Your task to perform on an android device: Go to Google maps Image 0: 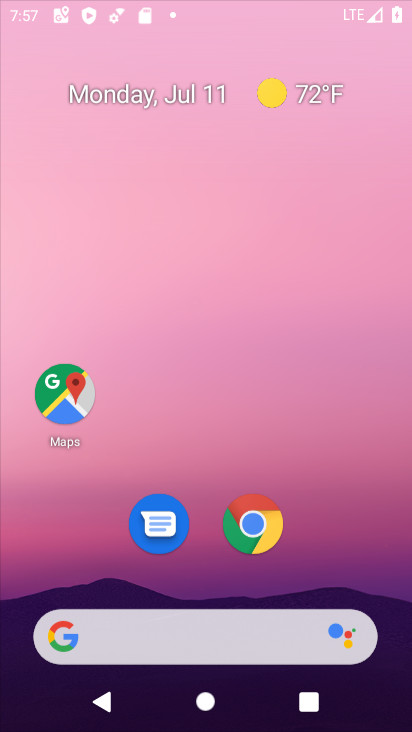
Step 0: click (267, 36)
Your task to perform on an android device: Go to Google maps Image 1: 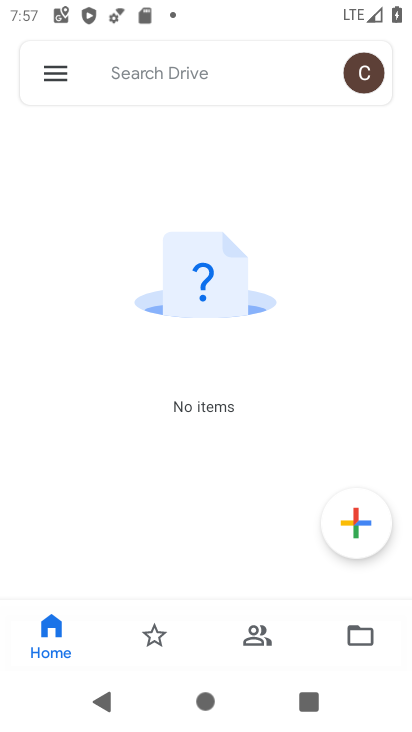
Step 1: press home button
Your task to perform on an android device: Go to Google maps Image 2: 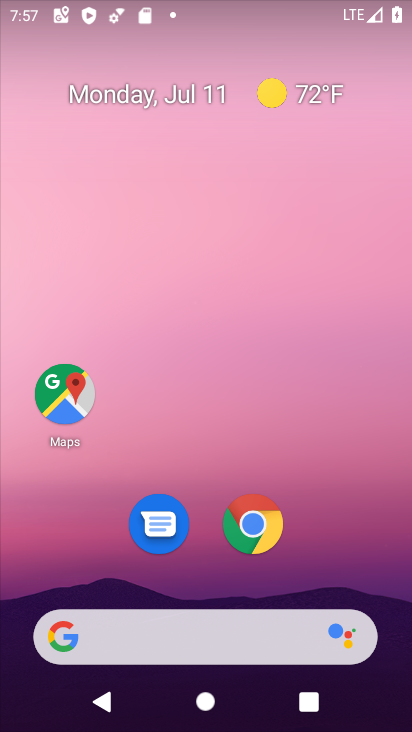
Step 2: click (73, 393)
Your task to perform on an android device: Go to Google maps Image 3: 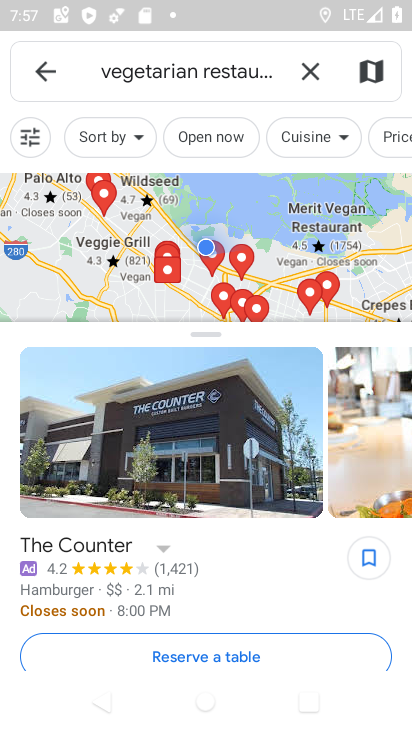
Step 3: click (315, 63)
Your task to perform on an android device: Go to Google maps Image 4: 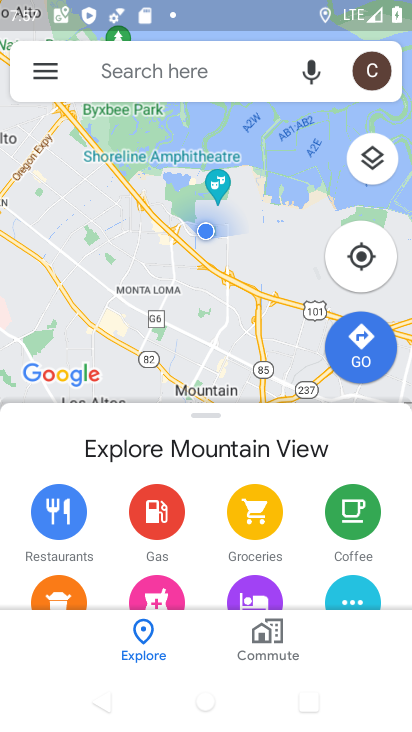
Step 4: task complete